Your task to perform on an android device: open chrome and create a bookmark for the current page Image 0: 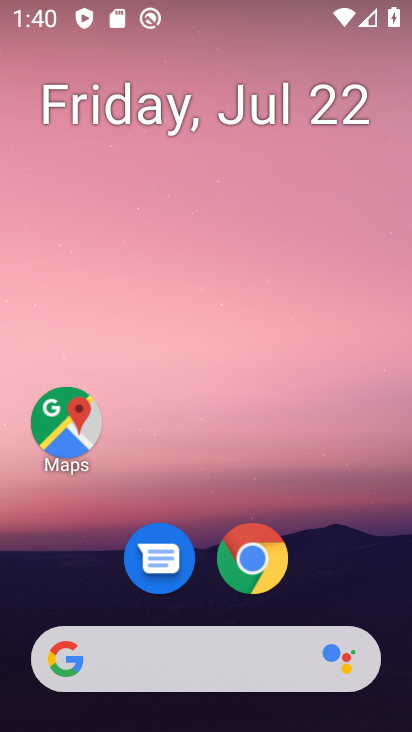
Step 0: drag from (361, 581) to (219, 51)
Your task to perform on an android device: open chrome and create a bookmark for the current page Image 1: 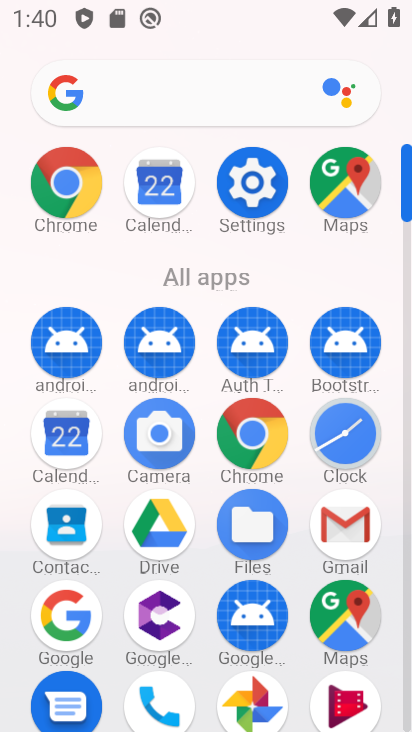
Step 1: click (69, 199)
Your task to perform on an android device: open chrome and create a bookmark for the current page Image 2: 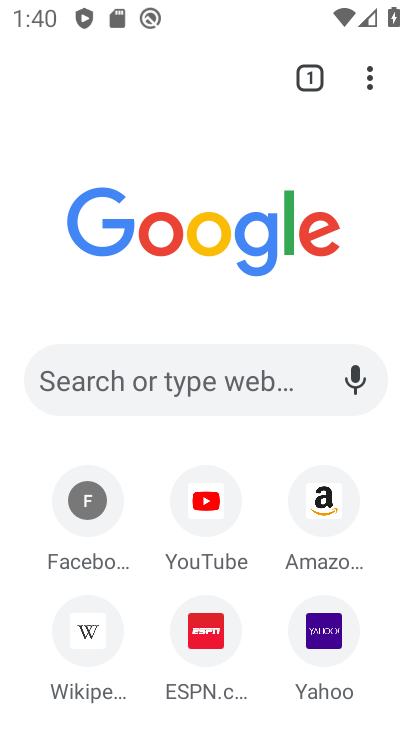
Step 2: click (368, 66)
Your task to perform on an android device: open chrome and create a bookmark for the current page Image 3: 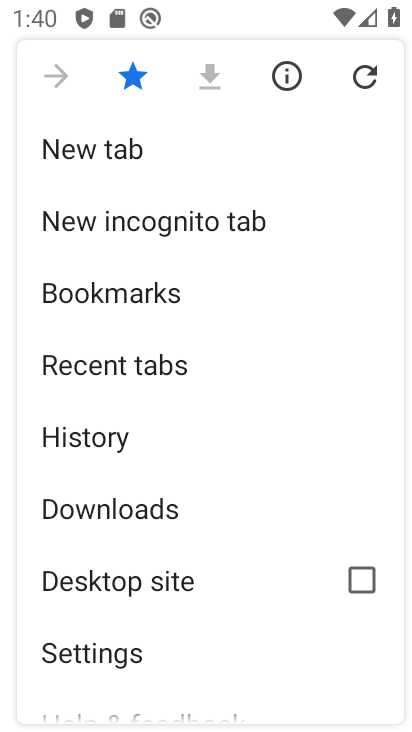
Step 3: task complete